Your task to perform on an android device: Search for seafood restaurants on Google Maps Image 0: 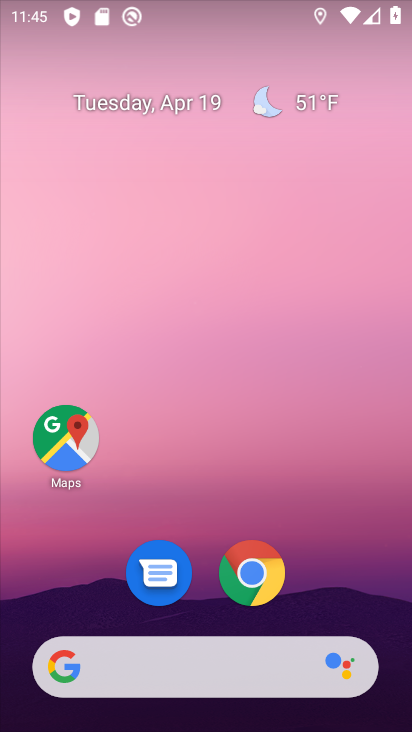
Step 0: click (71, 455)
Your task to perform on an android device: Search for seafood restaurants on Google Maps Image 1: 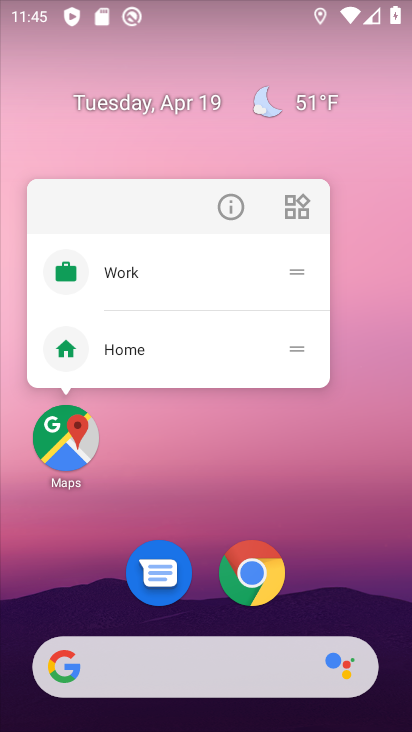
Step 1: click (63, 450)
Your task to perform on an android device: Search for seafood restaurants on Google Maps Image 2: 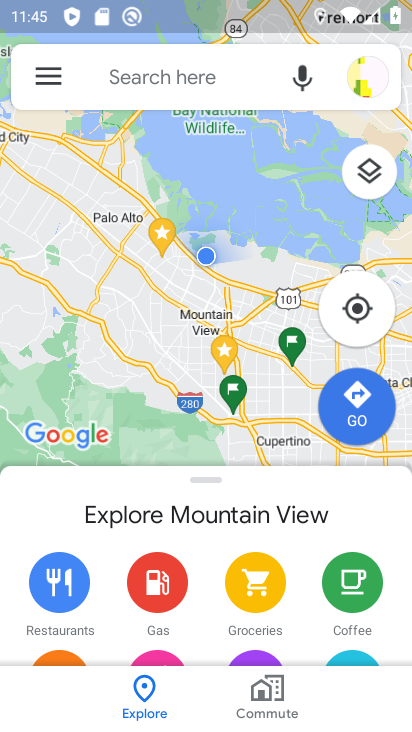
Step 2: click (141, 79)
Your task to perform on an android device: Search for seafood restaurants on Google Maps Image 3: 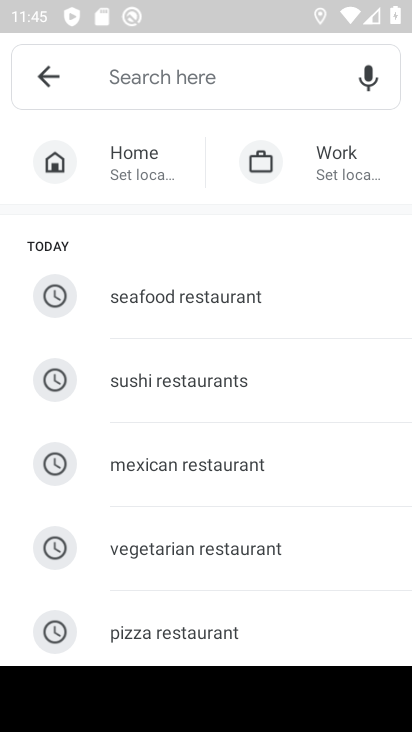
Step 3: click (221, 294)
Your task to perform on an android device: Search for seafood restaurants on Google Maps Image 4: 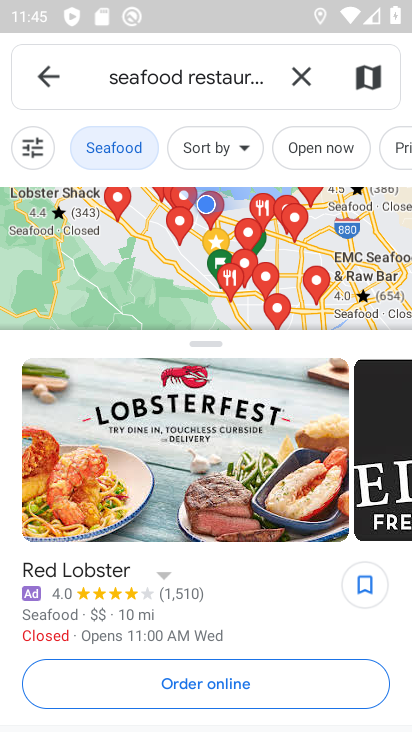
Step 4: task complete